Your task to perform on an android device: Clear the cart on bestbuy. Search for "dell xps" on bestbuy, select the first entry, add it to the cart, then select checkout. Image 0: 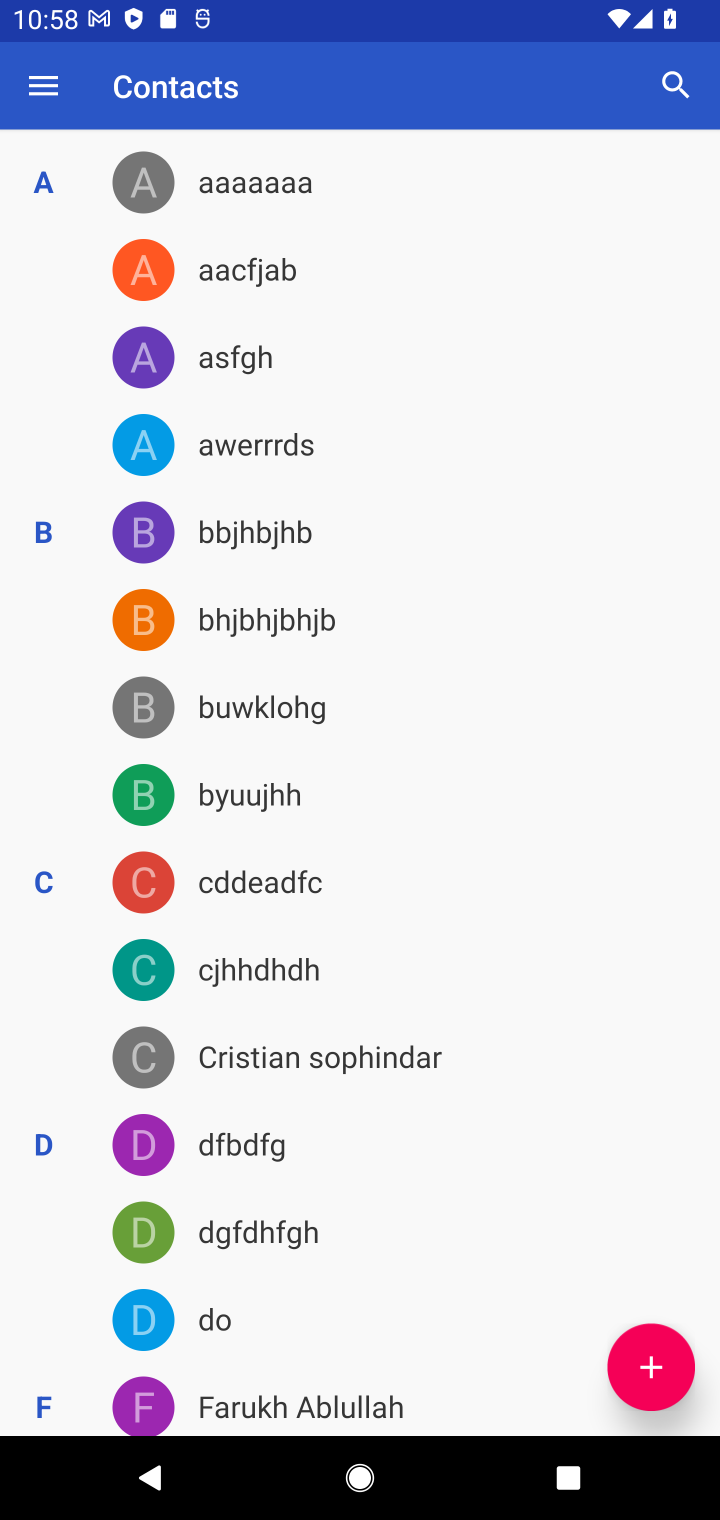
Step 0: press home button
Your task to perform on an android device: Clear the cart on bestbuy. Search for "dell xps" on bestbuy, select the first entry, add it to the cart, then select checkout. Image 1: 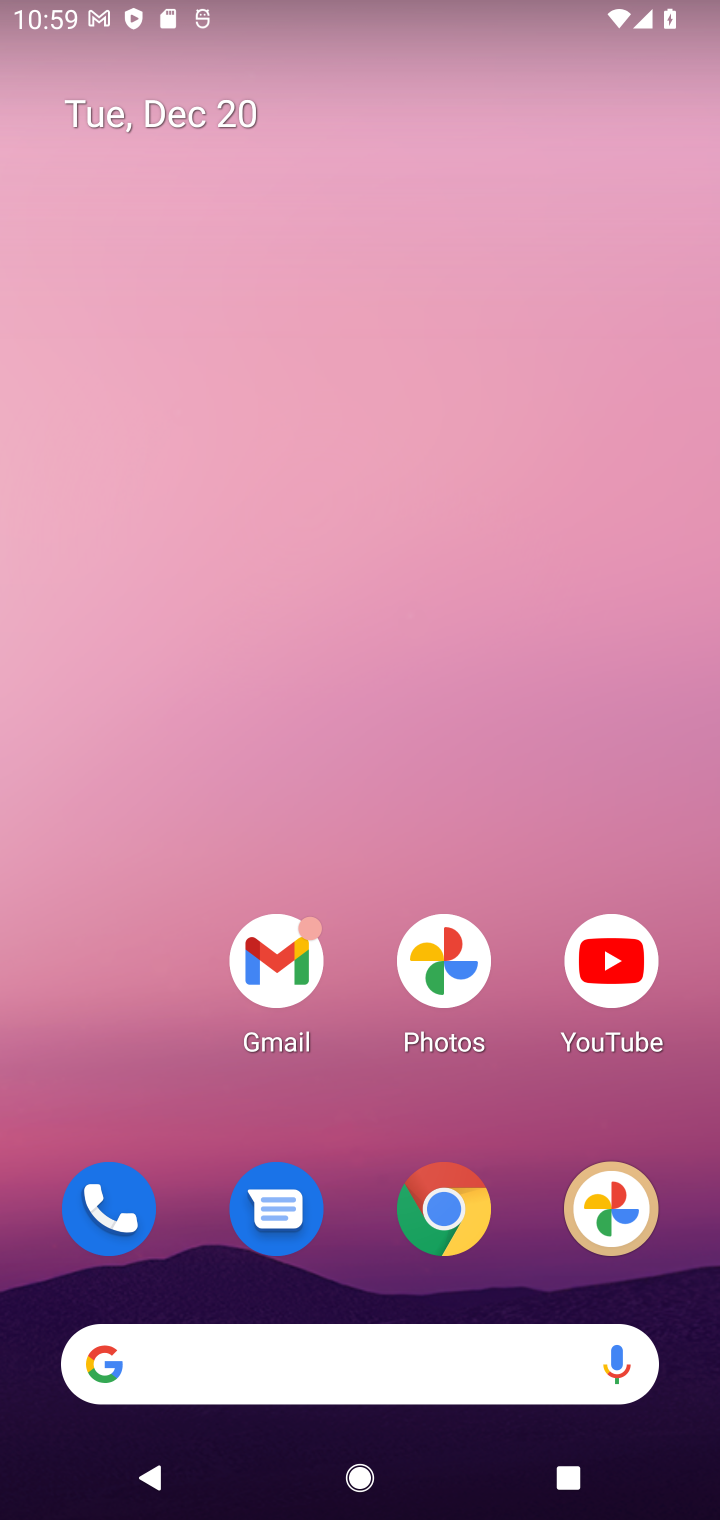
Step 1: click (444, 1220)
Your task to perform on an android device: Clear the cart on bestbuy. Search for "dell xps" on bestbuy, select the first entry, add it to the cart, then select checkout. Image 2: 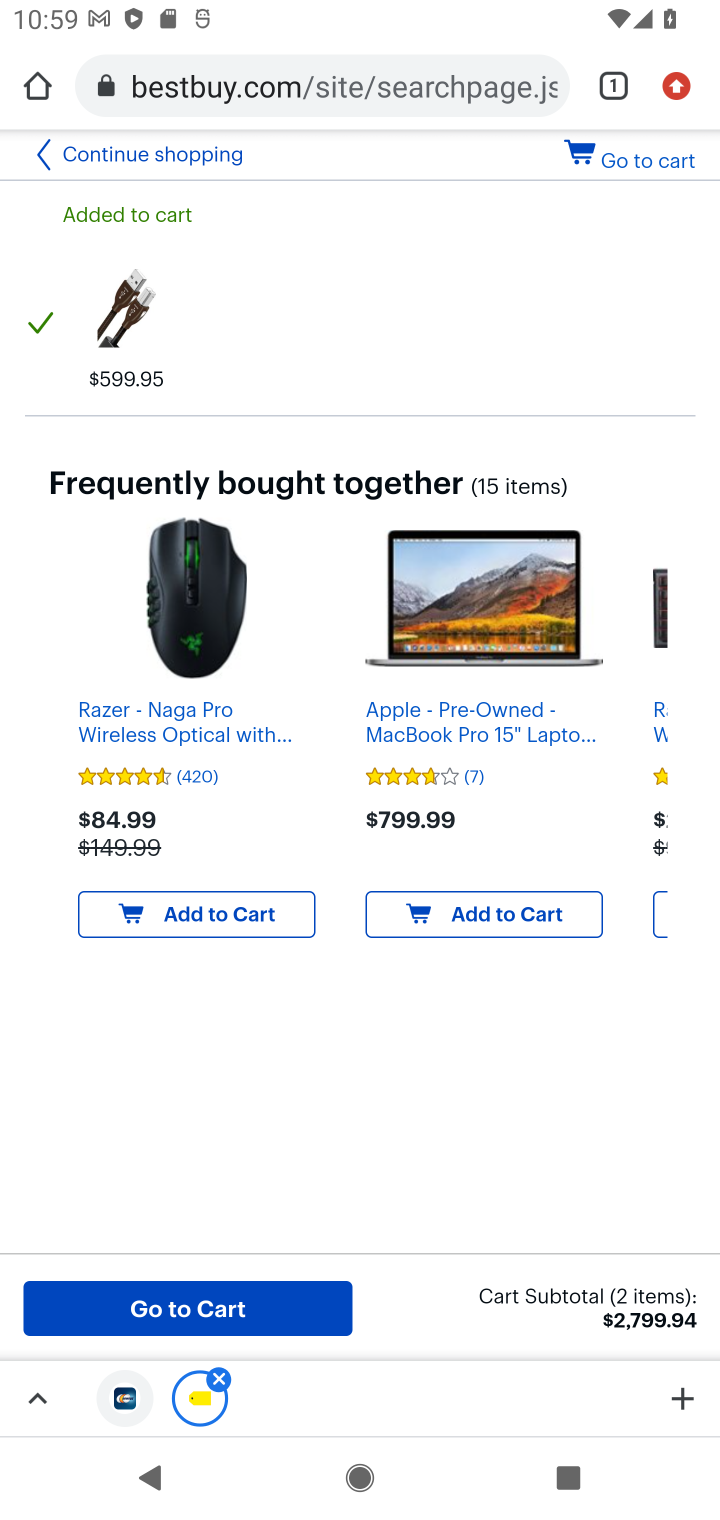
Step 2: press back button
Your task to perform on an android device: Clear the cart on bestbuy. Search for "dell xps" on bestbuy, select the first entry, add it to the cart, then select checkout. Image 3: 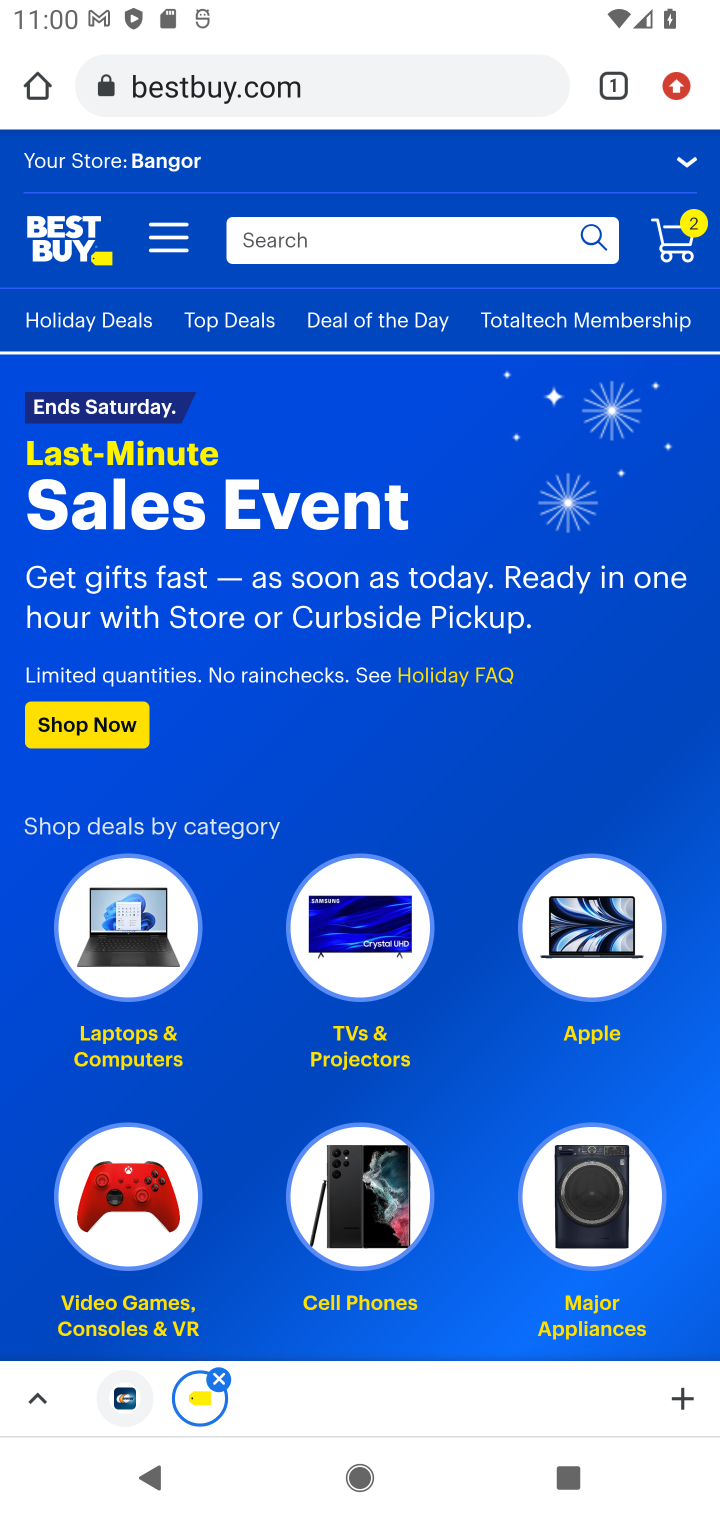
Step 3: click (679, 240)
Your task to perform on an android device: Clear the cart on bestbuy. Search for "dell xps" on bestbuy, select the first entry, add it to the cart, then select checkout. Image 4: 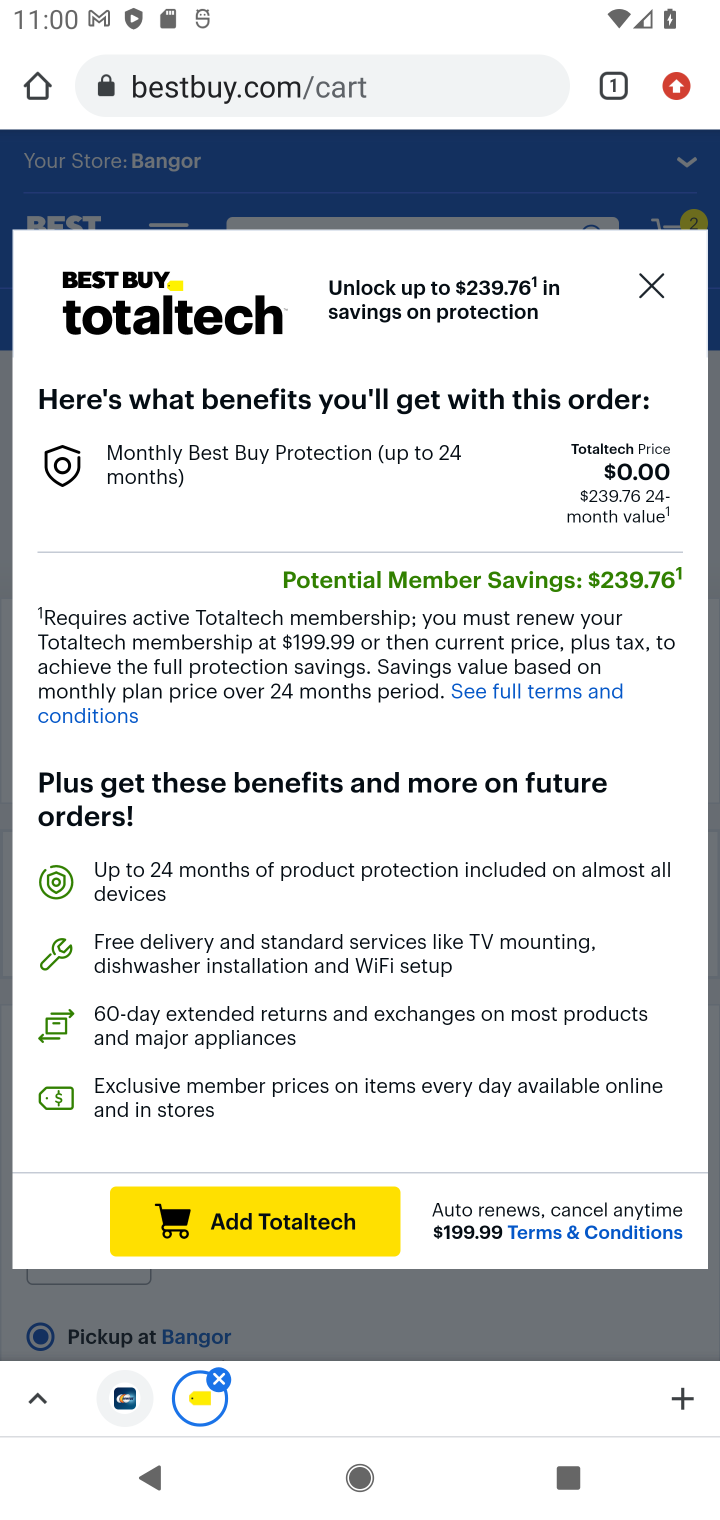
Step 4: click (664, 295)
Your task to perform on an android device: Clear the cart on bestbuy. Search for "dell xps" on bestbuy, select the first entry, add it to the cart, then select checkout. Image 5: 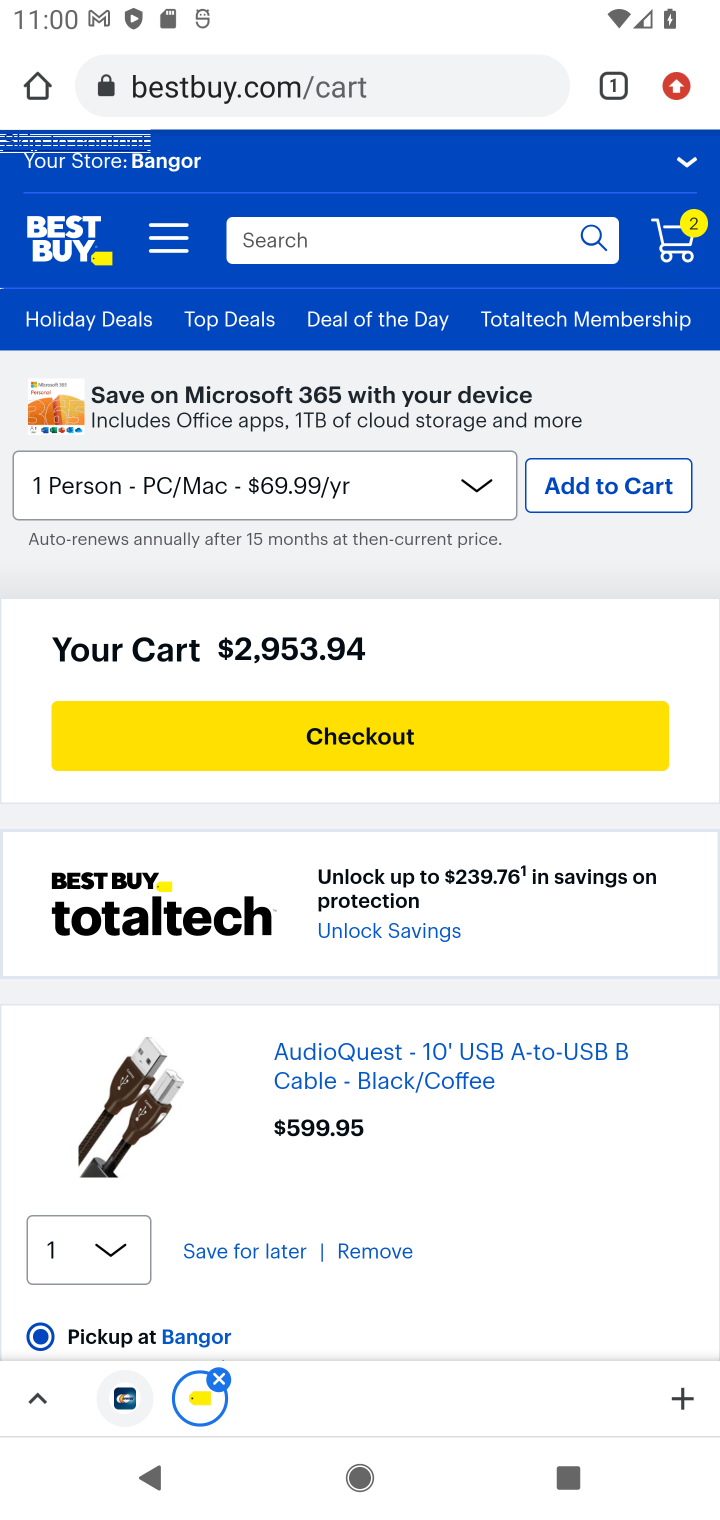
Step 5: drag from (424, 911) to (412, 618)
Your task to perform on an android device: Clear the cart on bestbuy. Search for "dell xps" on bestbuy, select the first entry, add it to the cart, then select checkout. Image 6: 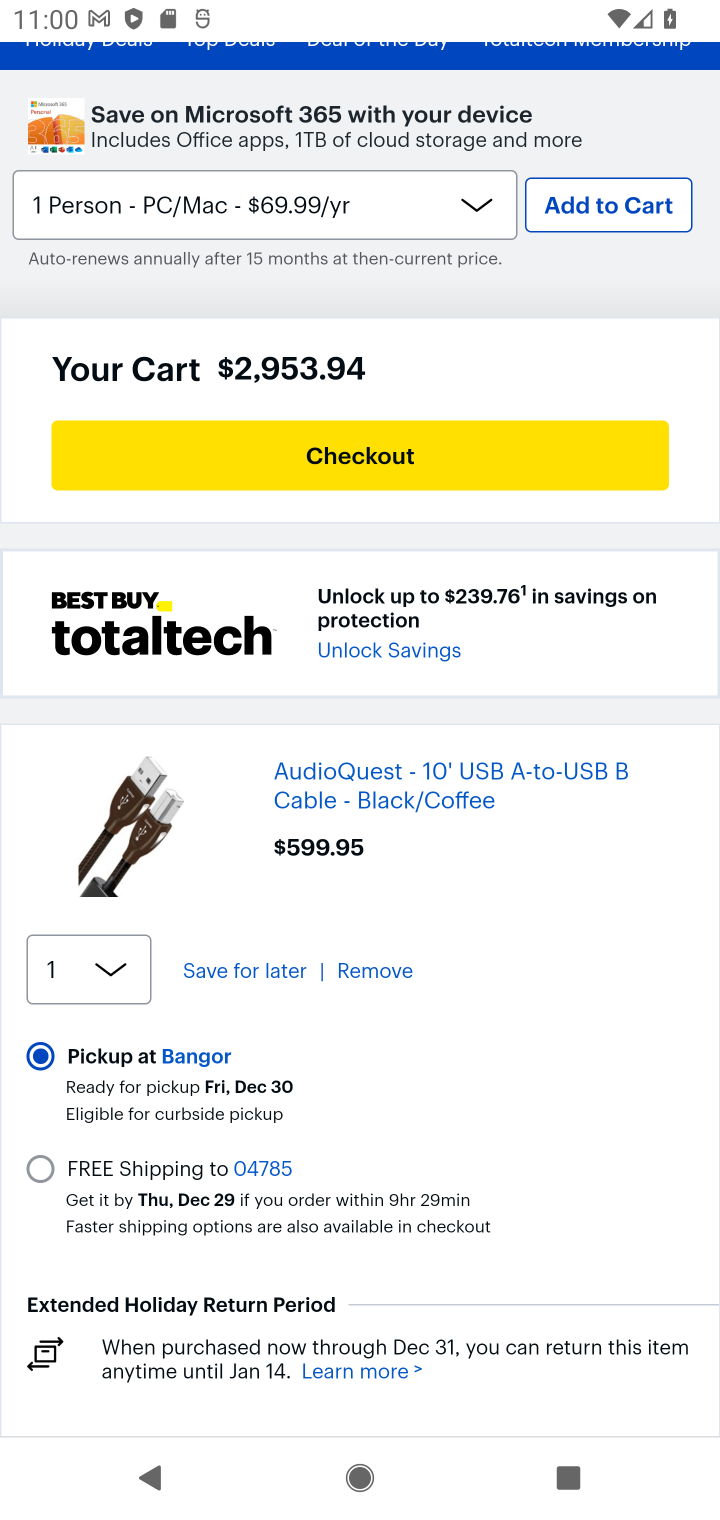
Step 6: click (384, 966)
Your task to perform on an android device: Clear the cart on bestbuy. Search for "dell xps" on bestbuy, select the first entry, add it to the cart, then select checkout. Image 7: 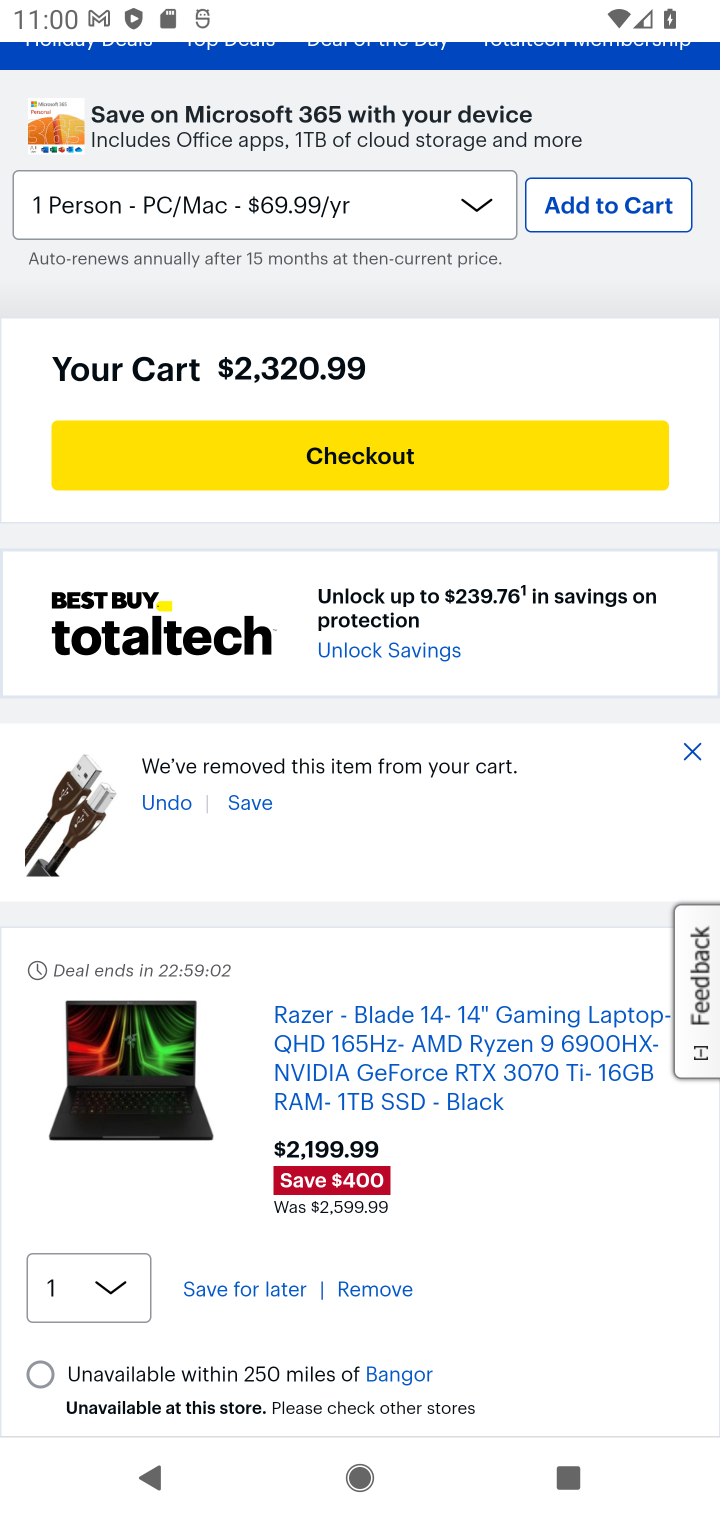
Step 7: click (375, 1290)
Your task to perform on an android device: Clear the cart on bestbuy. Search for "dell xps" on bestbuy, select the first entry, add it to the cart, then select checkout. Image 8: 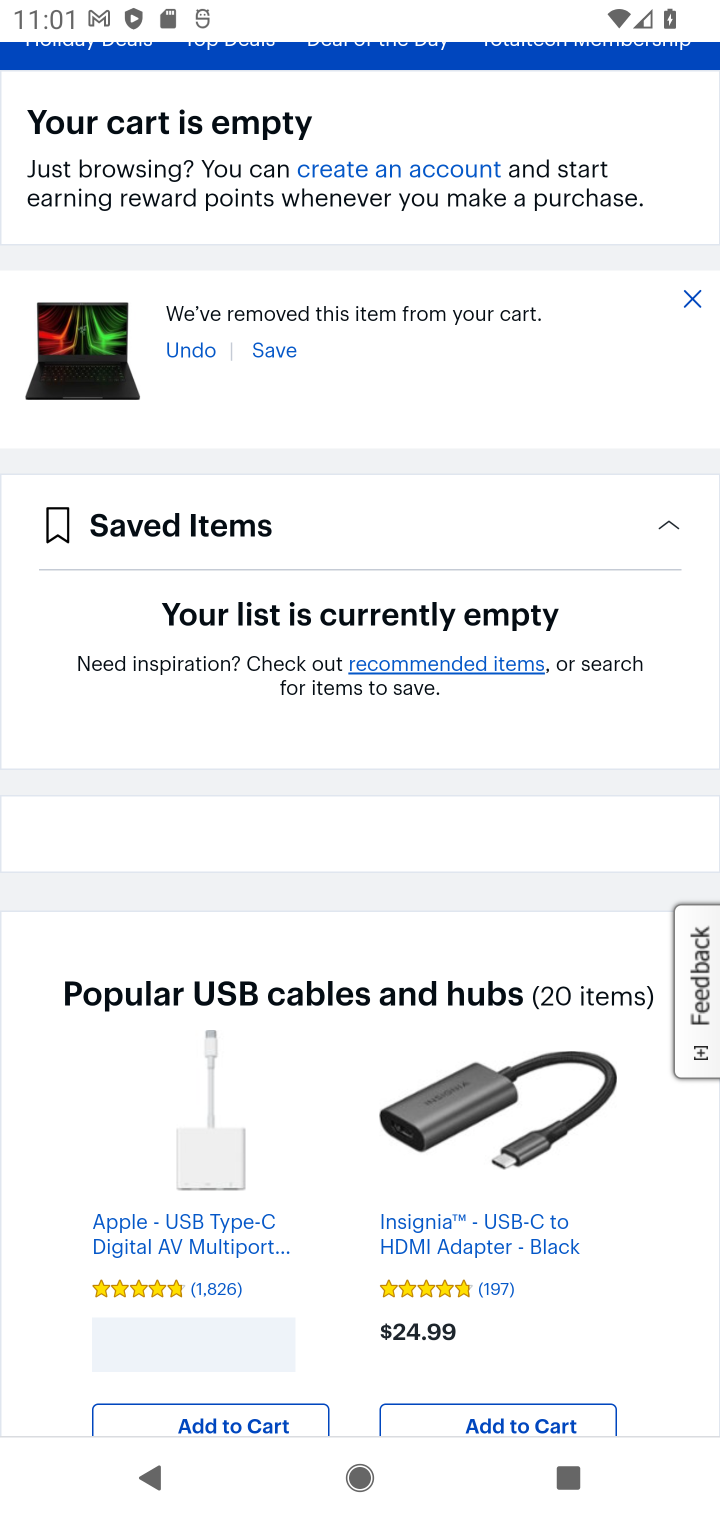
Step 8: drag from (245, 460) to (251, 834)
Your task to perform on an android device: Clear the cart on bestbuy. Search for "dell xps" on bestbuy, select the first entry, add it to the cart, then select checkout. Image 9: 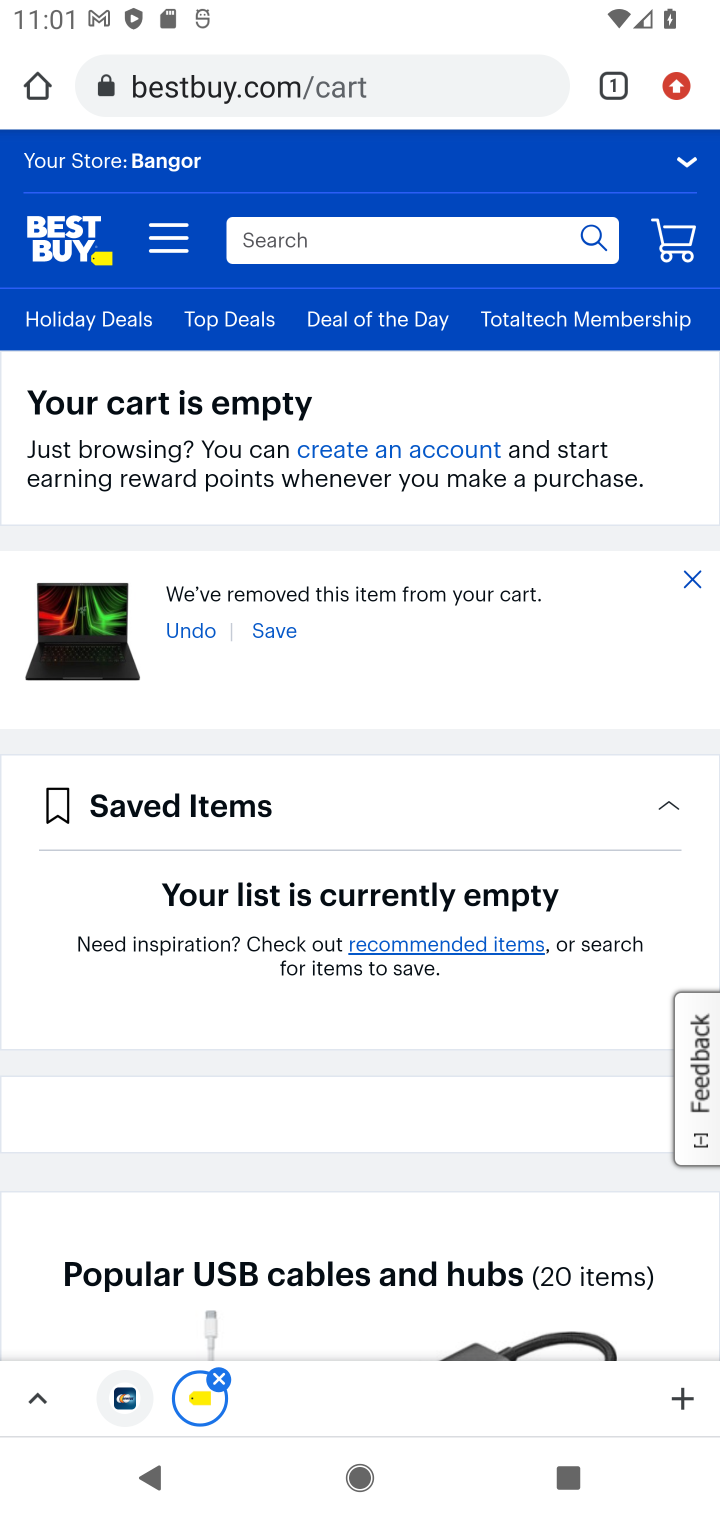
Step 9: click (265, 248)
Your task to perform on an android device: Clear the cart on bestbuy. Search for "dell xps" on bestbuy, select the first entry, add it to the cart, then select checkout. Image 10: 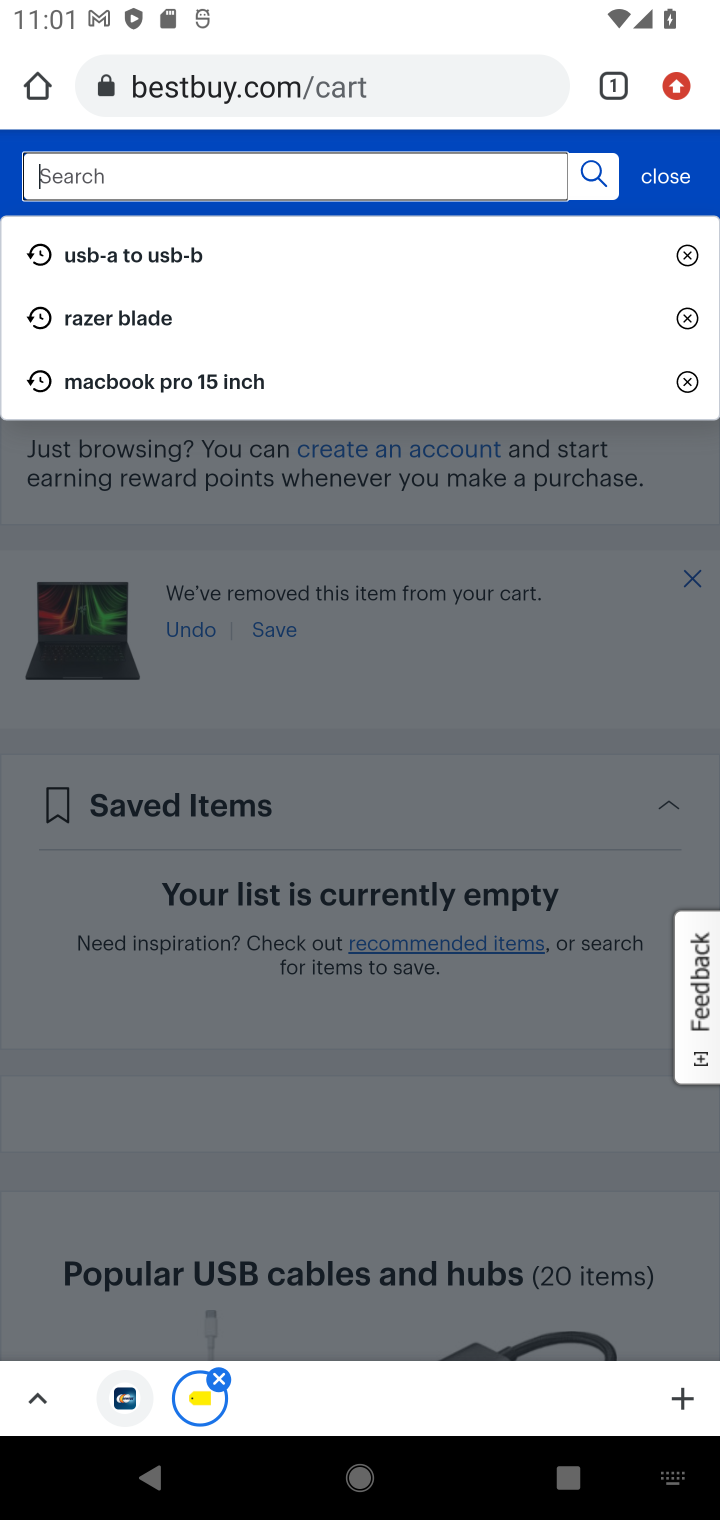
Step 10: type "dell xps"
Your task to perform on an android device: Clear the cart on bestbuy. Search for "dell xps" on bestbuy, select the first entry, add it to the cart, then select checkout. Image 11: 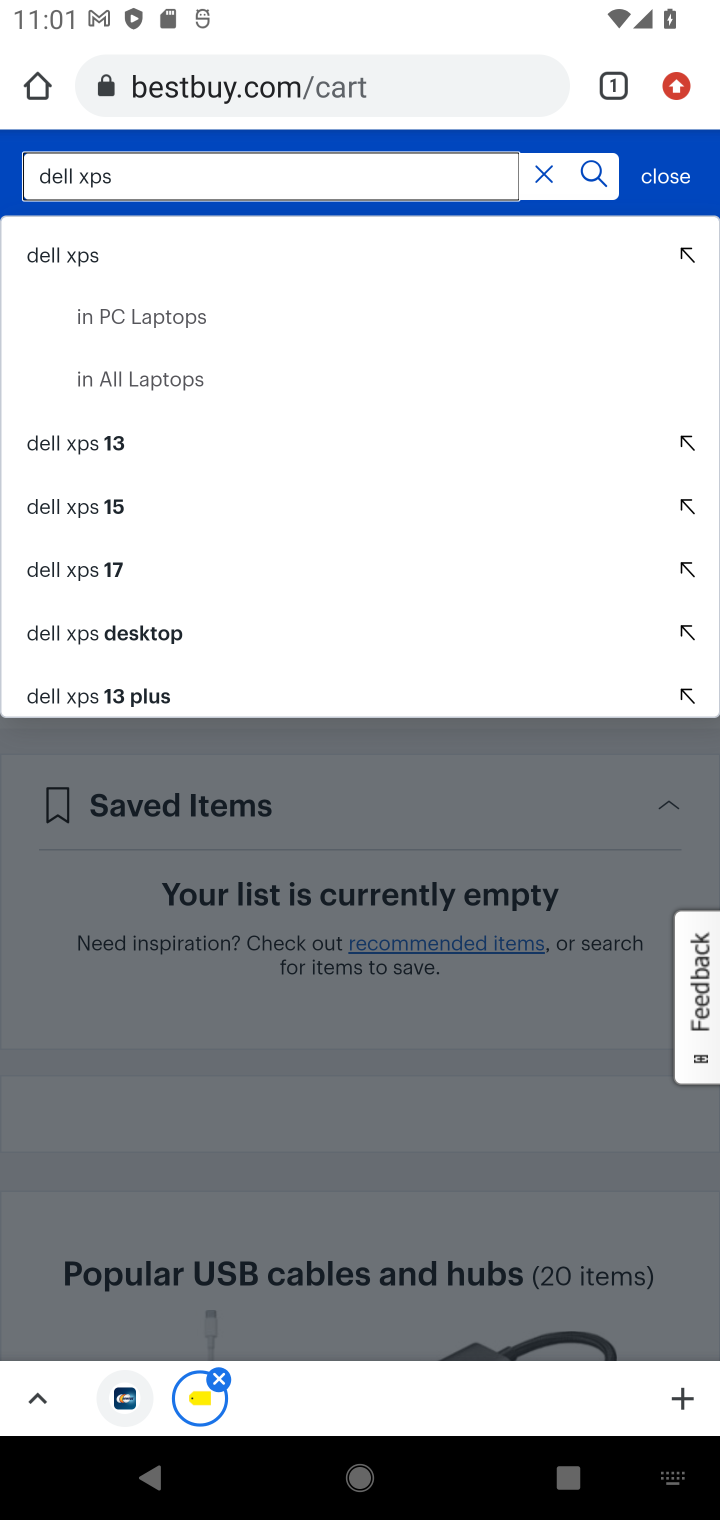
Step 11: click (58, 268)
Your task to perform on an android device: Clear the cart on bestbuy. Search for "dell xps" on bestbuy, select the first entry, add it to the cart, then select checkout. Image 12: 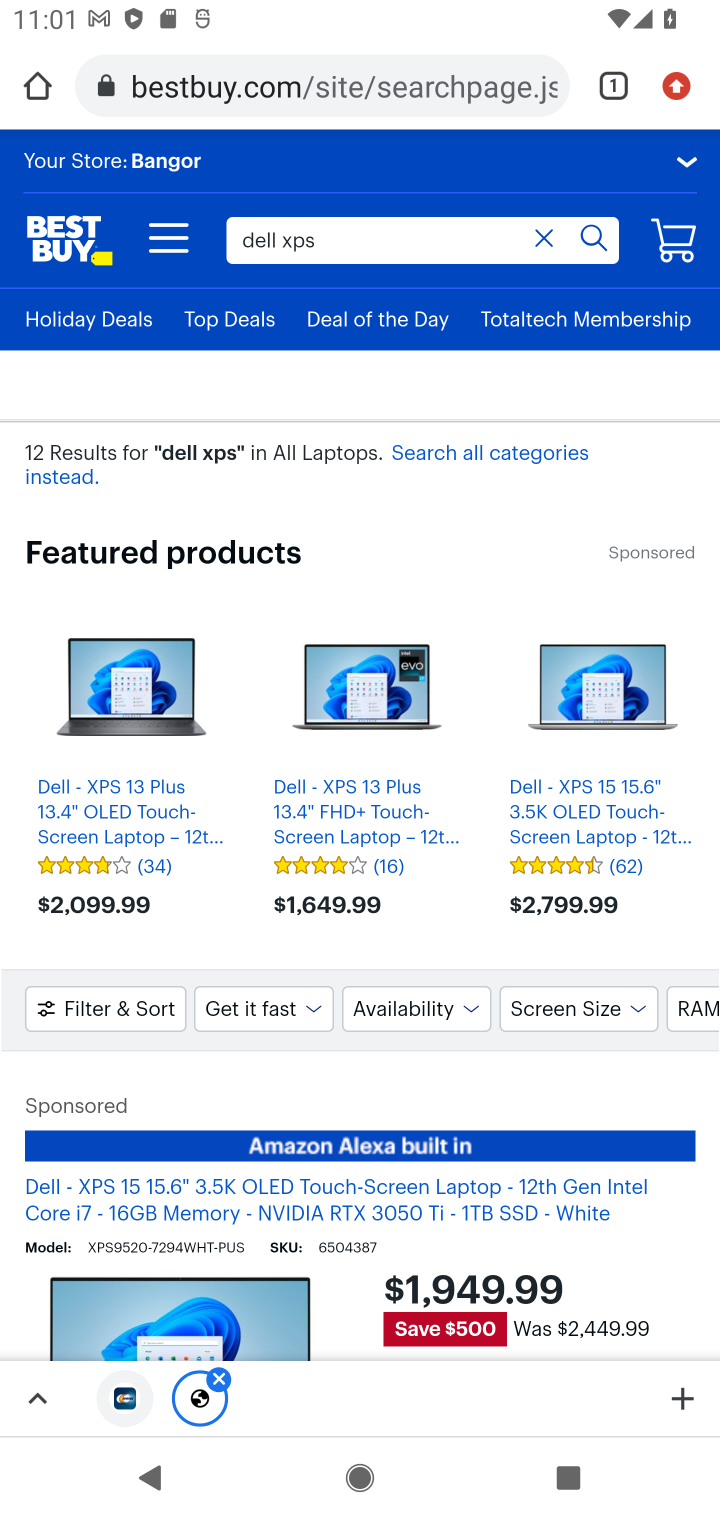
Step 12: drag from (302, 1026) to (247, 604)
Your task to perform on an android device: Clear the cart on bestbuy. Search for "dell xps" on bestbuy, select the first entry, add it to the cart, then select checkout. Image 13: 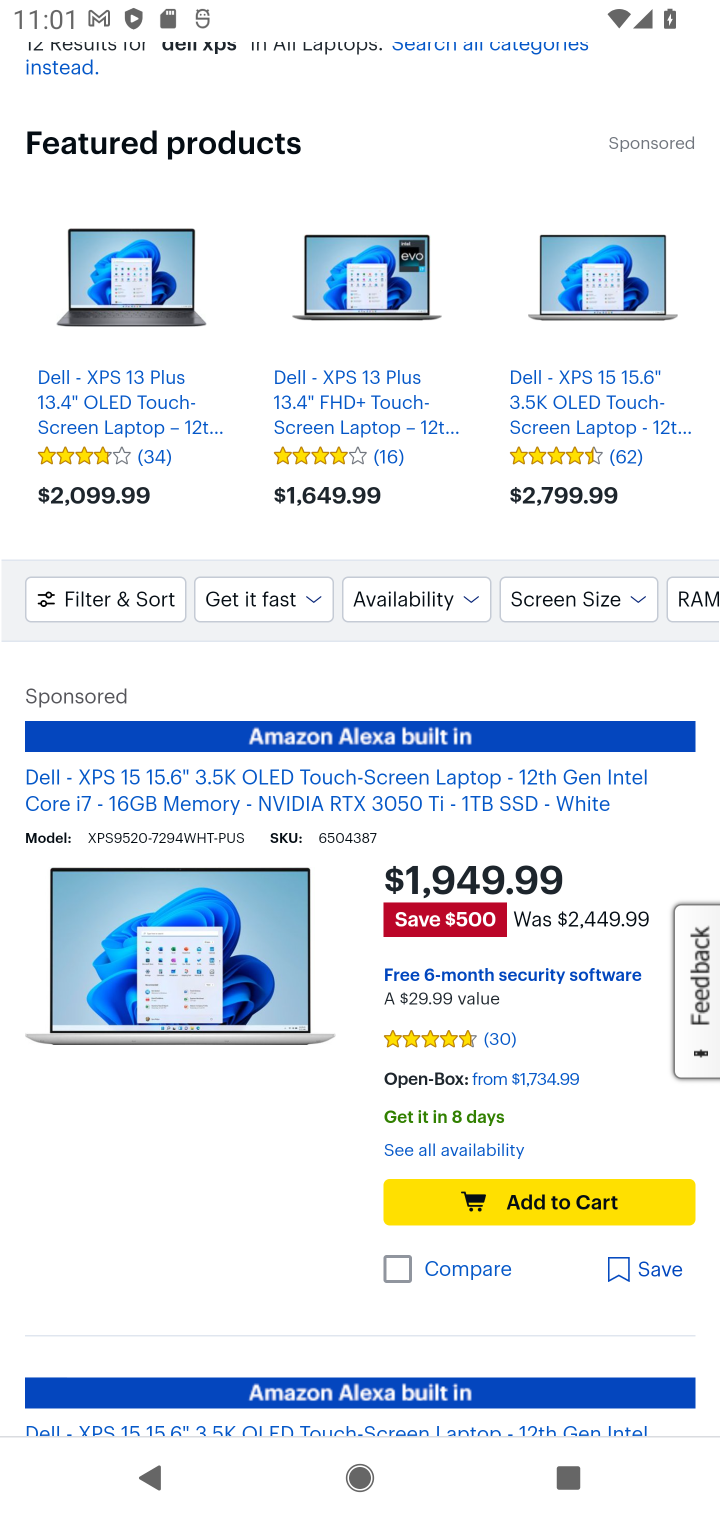
Step 13: click (482, 1189)
Your task to perform on an android device: Clear the cart on bestbuy. Search for "dell xps" on bestbuy, select the first entry, add it to the cart, then select checkout. Image 14: 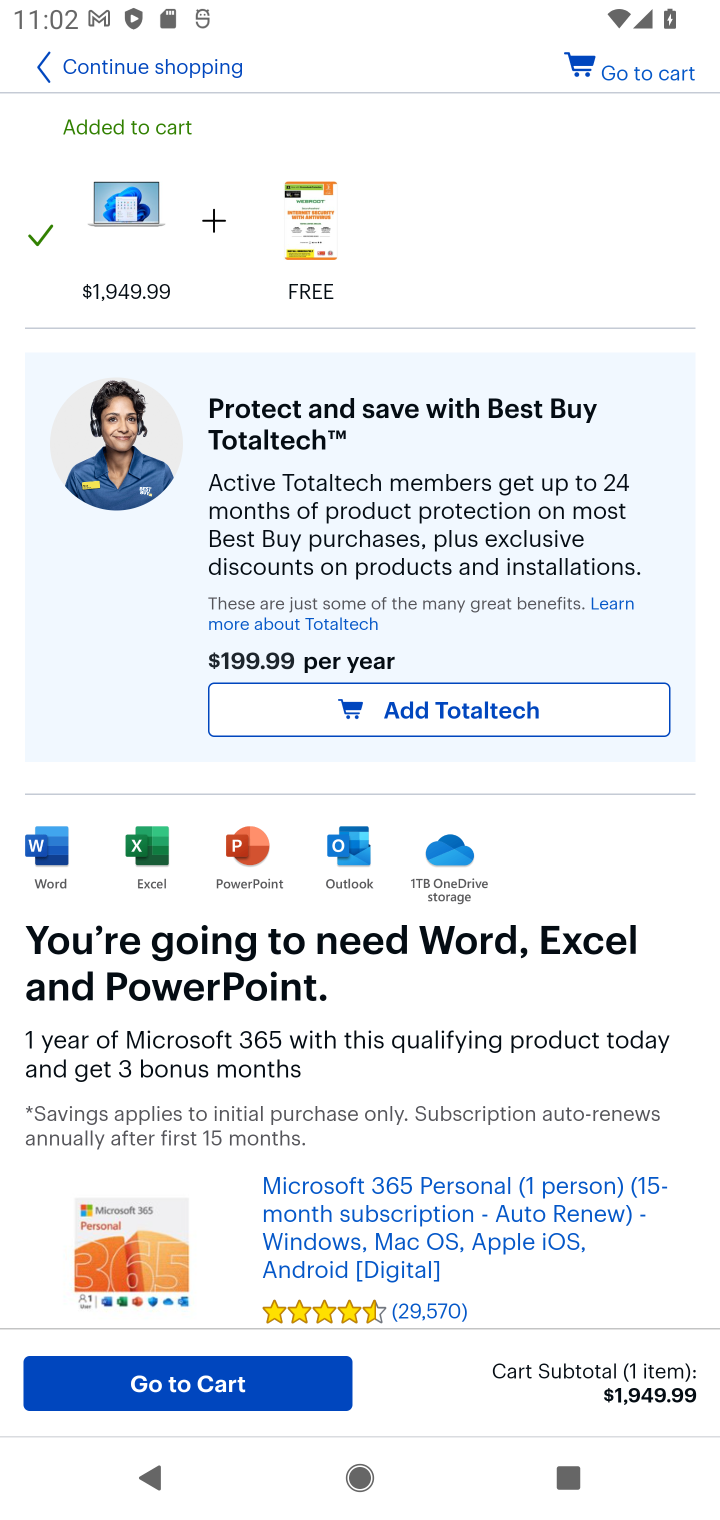
Step 14: click (639, 87)
Your task to perform on an android device: Clear the cart on bestbuy. Search for "dell xps" on bestbuy, select the first entry, add it to the cart, then select checkout. Image 15: 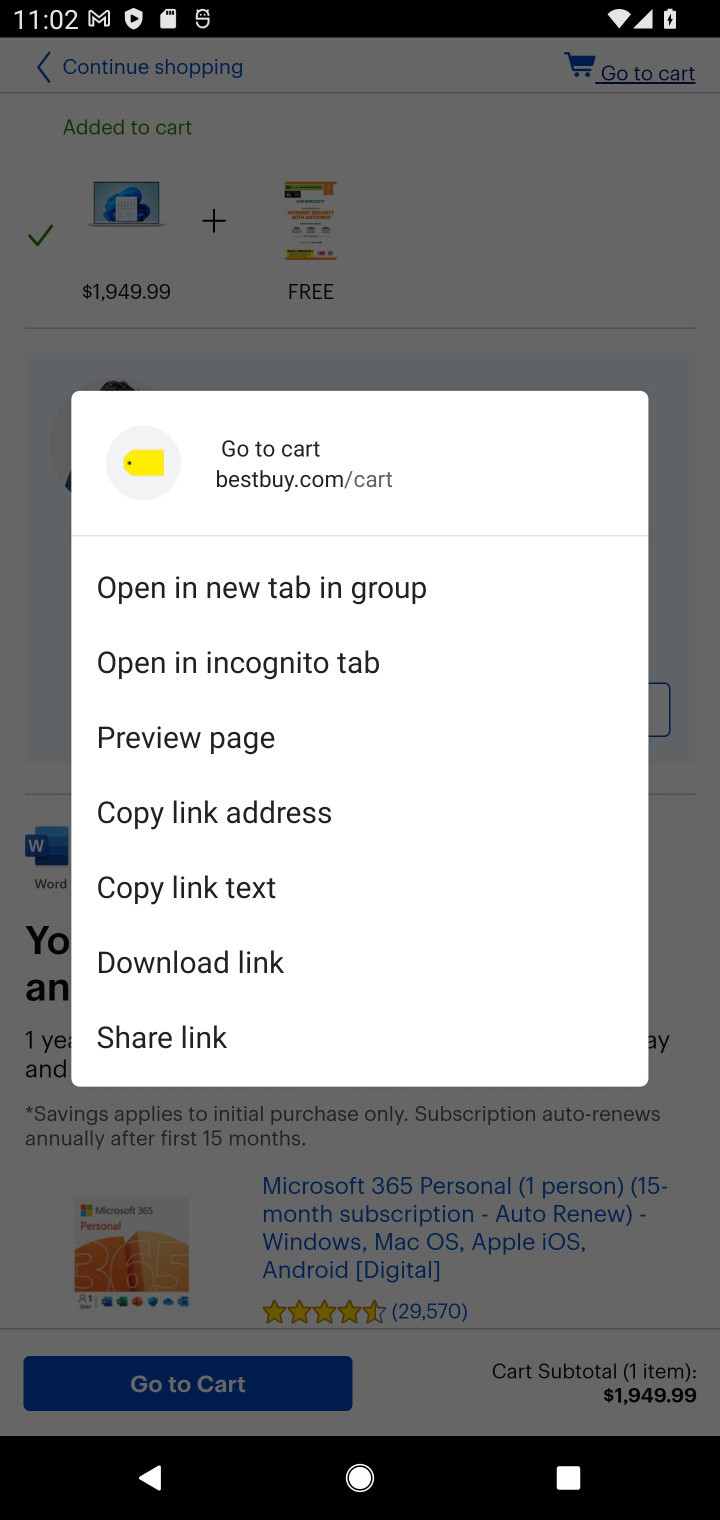
Step 15: click (603, 201)
Your task to perform on an android device: Clear the cart on bestbuy. Search for "dell xps" on bestbuy, select the first entry, add it to the cart, then select checkout. Image 16: 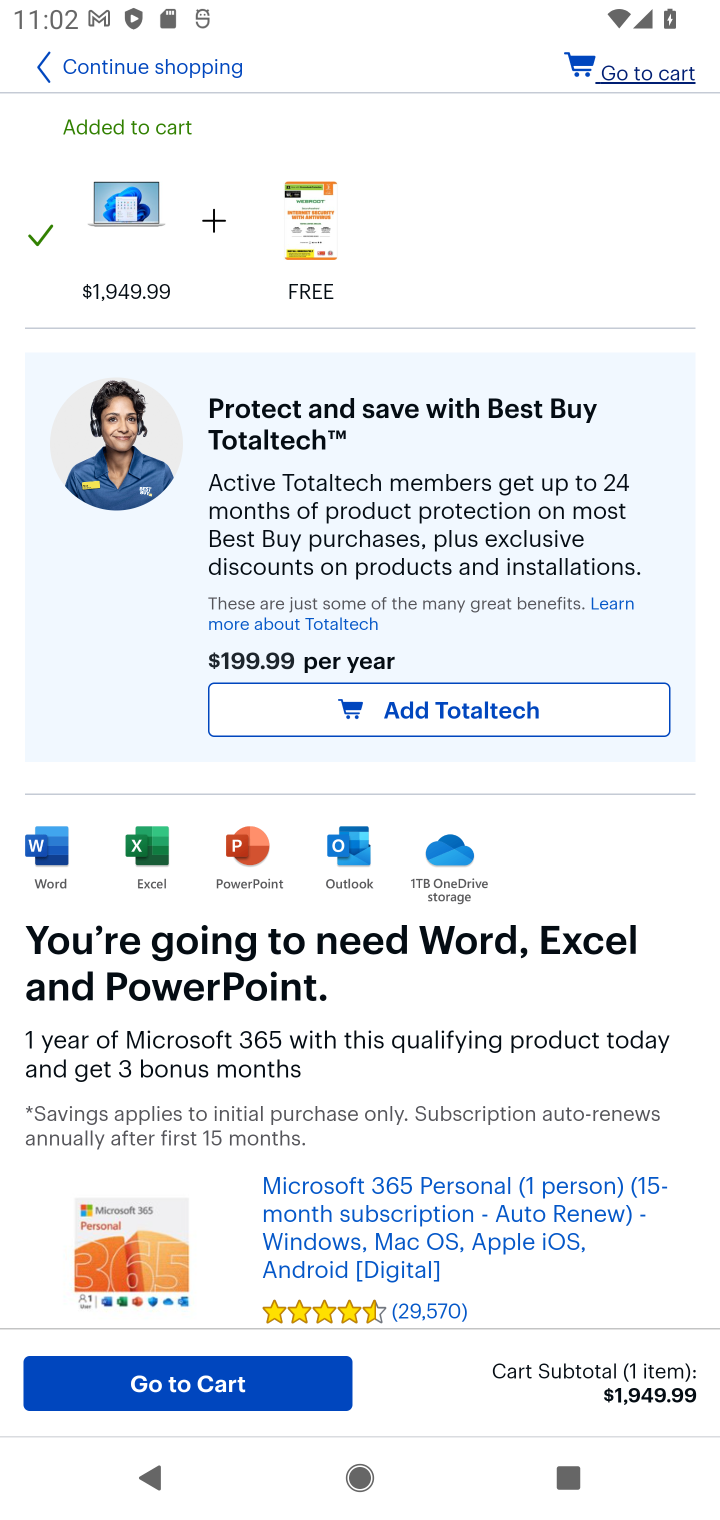
Step 16: click (656, 86)
Your task to perform on an android device: Clear the cart on bestbuy. Search for "dell xps" on bestbuy, select the first entry, add it to the cart, then select checkout. Image 17: 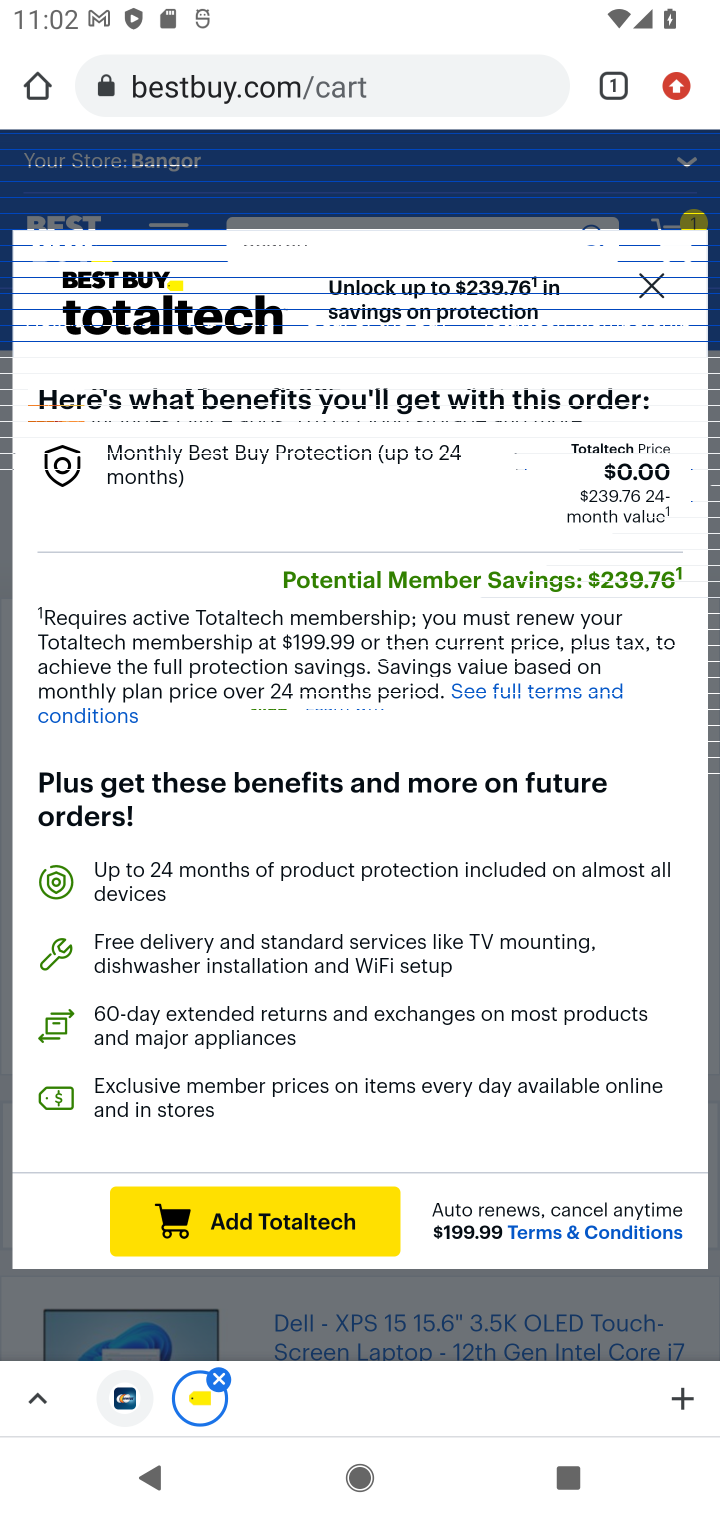
Step 17: click (648, 288)
Your task to perform on an android device: Clear the cart on bestbuy. Search for "dell xps" on bestbuy, select the first entry, add it to the cart, then select checkout. Image 18: 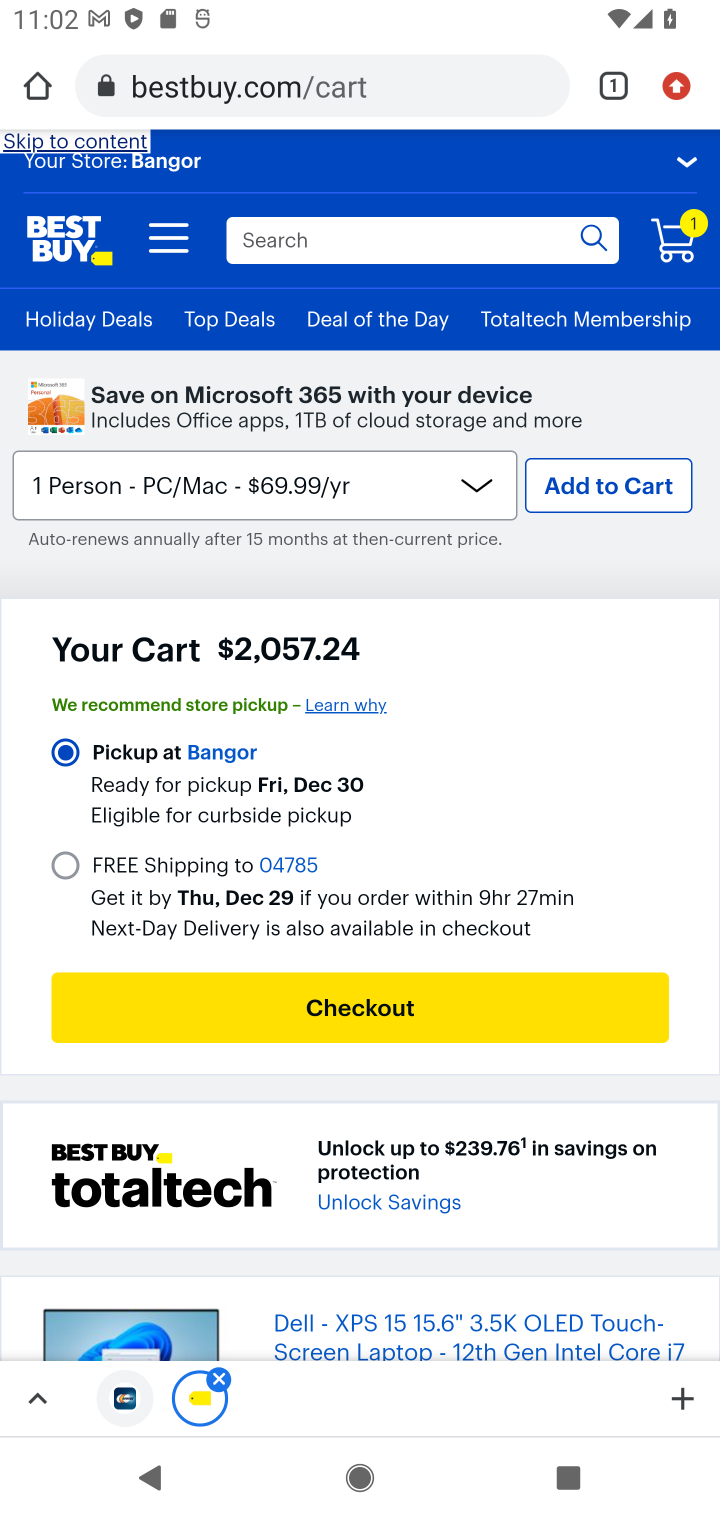
Step 18: click (342, 1001)
Your task to perform on an android device: Clear the cart on bestbuy. Search for "dell xps" on bestbuy, select the first entry, add it to the cart, then select checkout. Image 19: 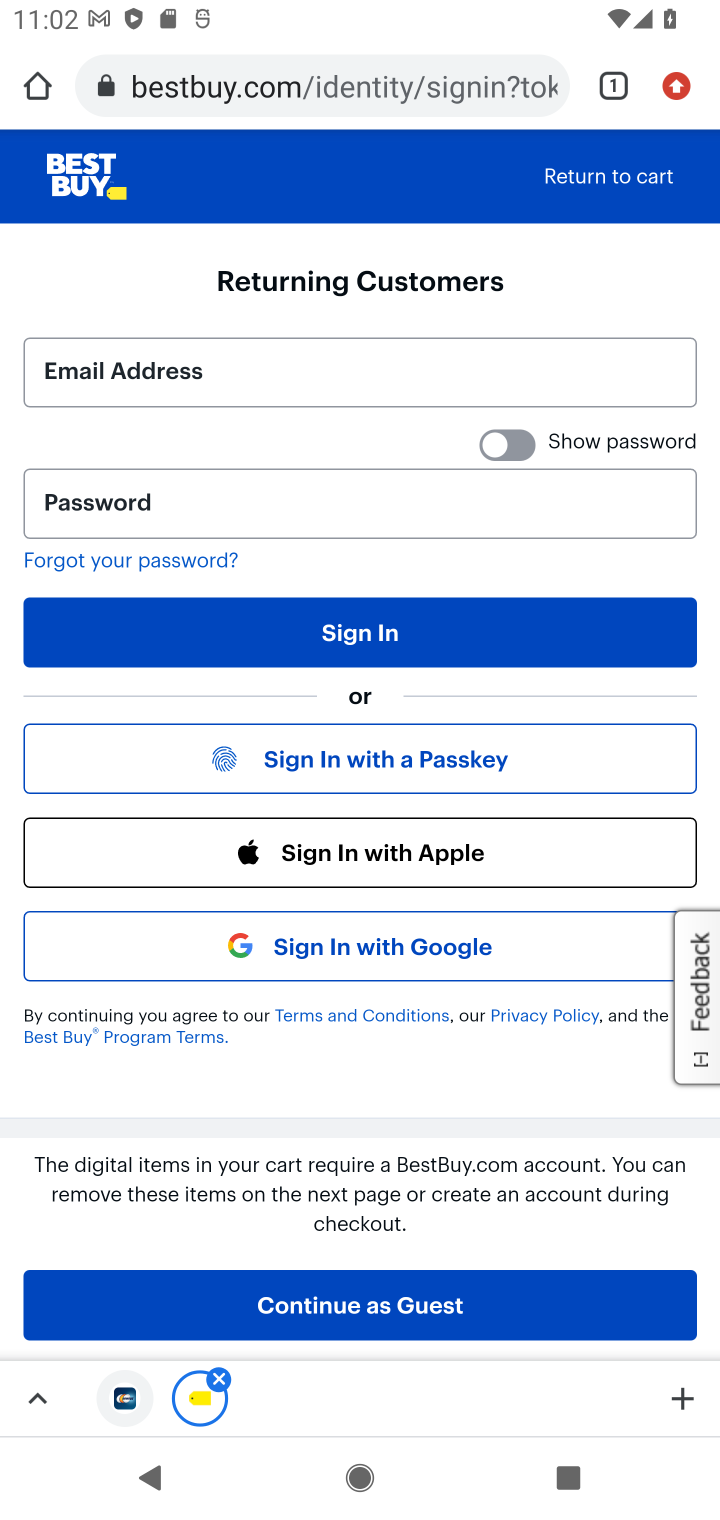
Step 19: task complete